Your task to perform on an android device: toggle location history Image 0: 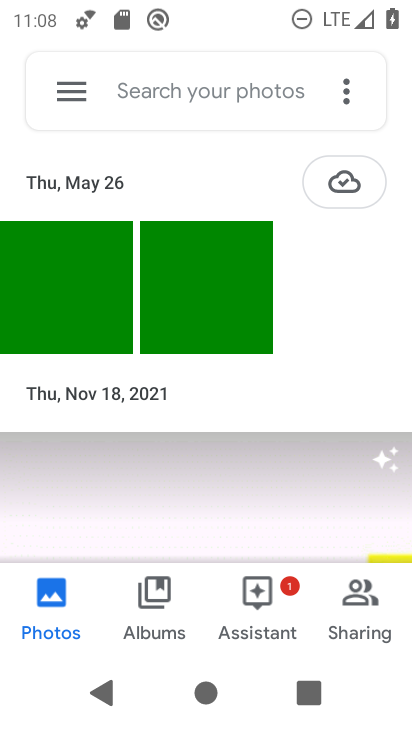
Step 0: press home button
Your task to perform on an android device: toggle location history Image 1: 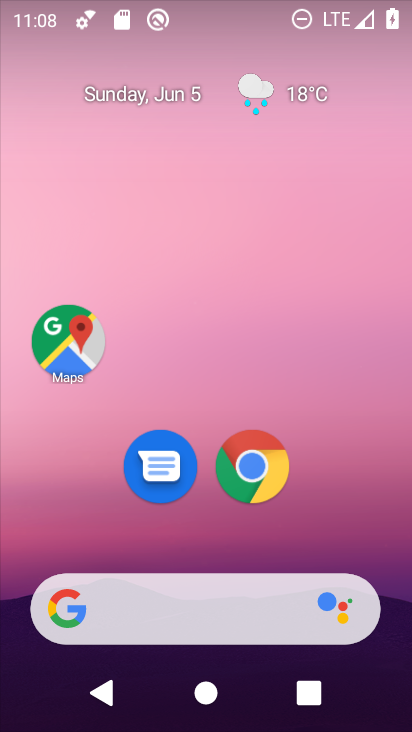
Step 1: drag from (321, 448) to (228, 53)
Your task to perform on an android device: toggle location history Image 2: 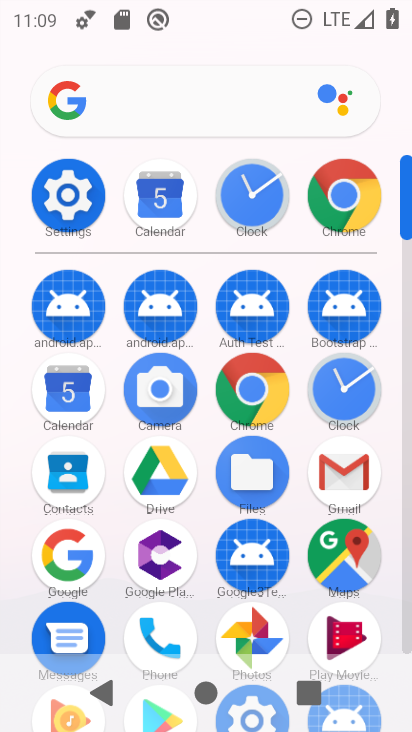
Step 2: click (68, 195)
Your task to perform on an android device: toggle location history Image 3: 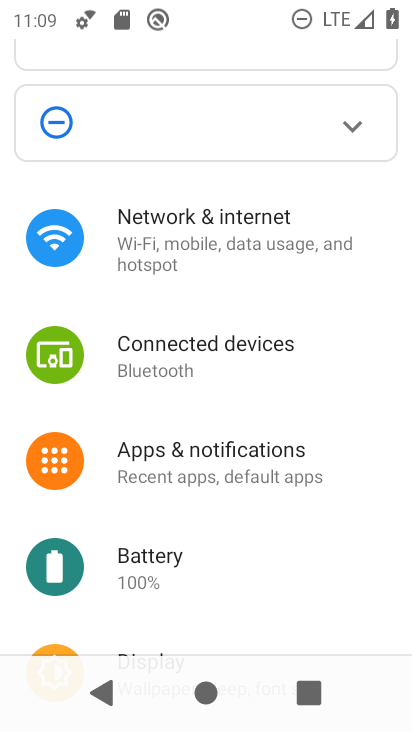
Step 3: drag from (348, 557) to (311, 166)
Your task to perform on an android device: toggle location history Image 4: 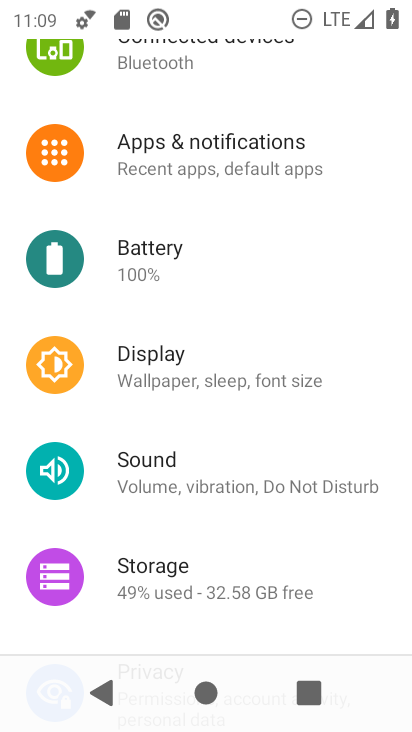
Step 4: drag from (232, 512) to (272, 147)
Your task to perform on an android device: toggle location history Image 5: 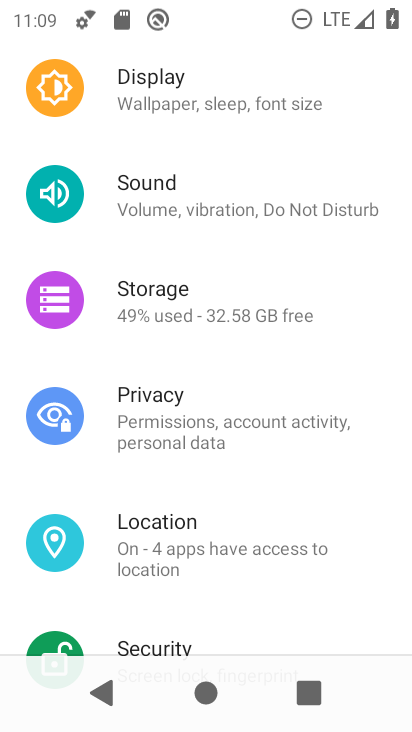
Step 5: click (153, 575)
Your task to perform on an android device: toggle location history Image 6: 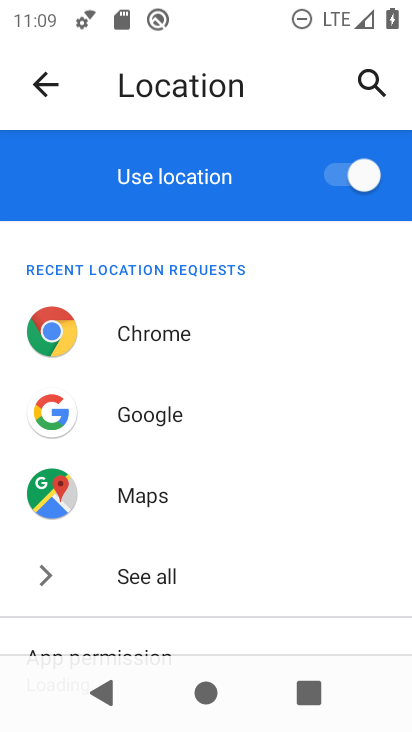
Step 6: drag from (295, 491) to (286, 161)
Your task to perform on an android device: toggle location history Image 7: 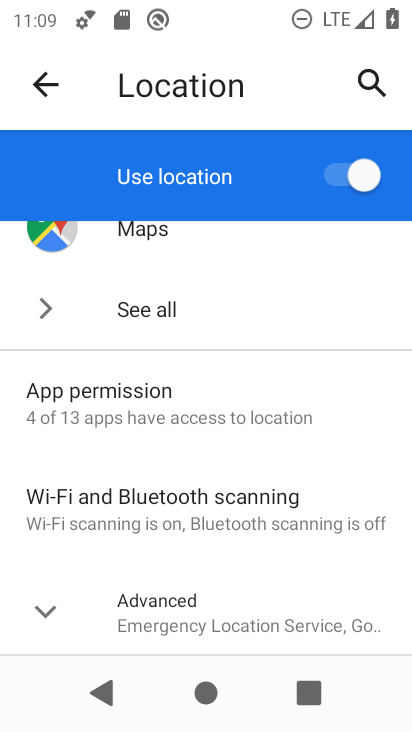
Step 7: click (30, 603)
Your task to perform on an android device: toggle location history Image 8: 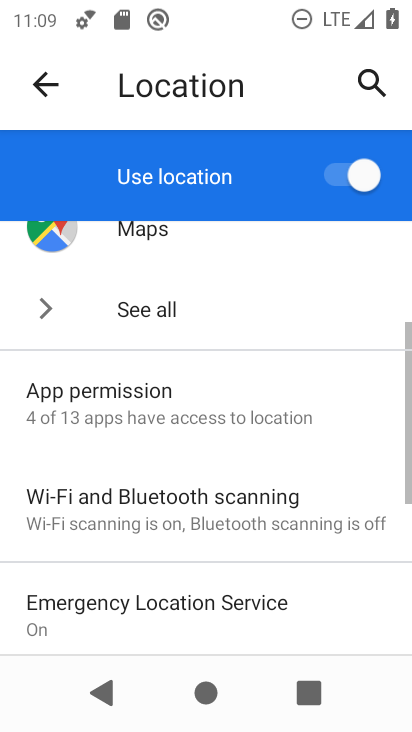
Step 8: drag from (282, 573) to (261, 219)
Your task to perform on an android device: toggle location history Image 9: 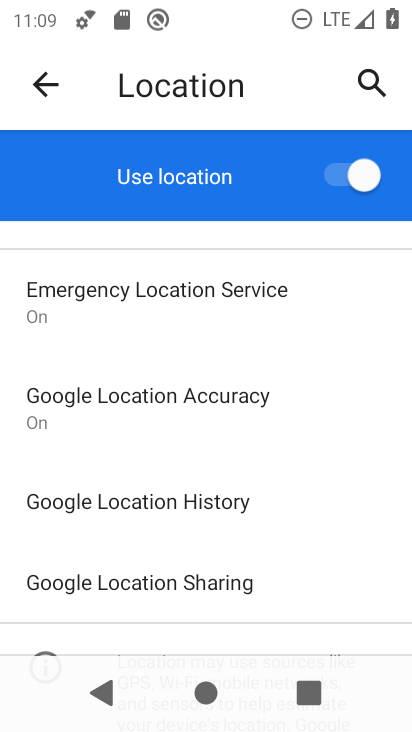
Step 9: drag from (312, 519) to (300, 263)
Your task to perform on an android device: toggle location history Image 10: 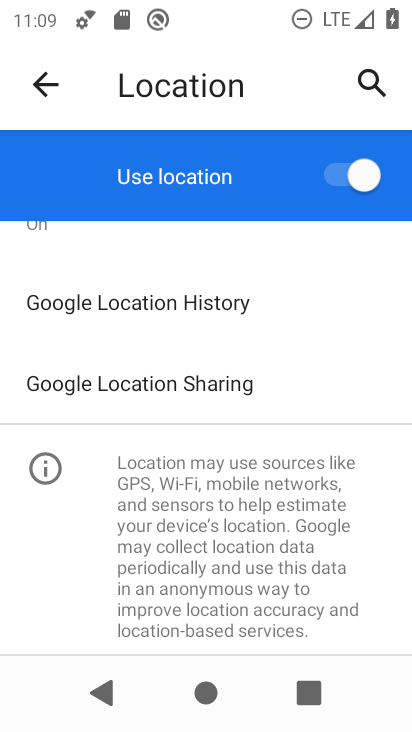
Step 10: click (209, 306)
Your task to perform on an android device: toggle location history Image 11: 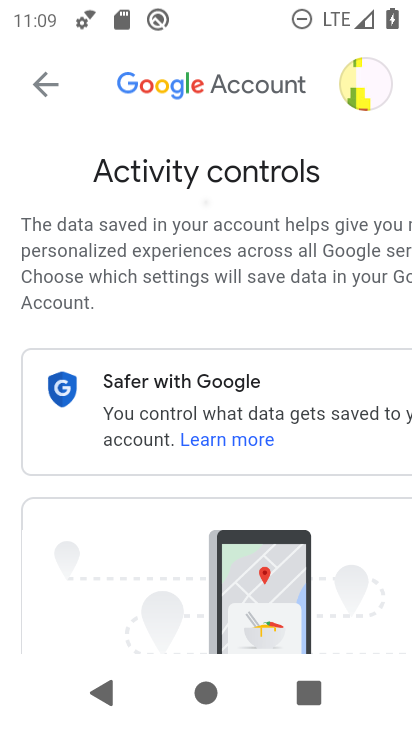
Step 11: drag from (209, 603) to (174, 222)
Your task to perform on an android device: toggle location history Image 12: 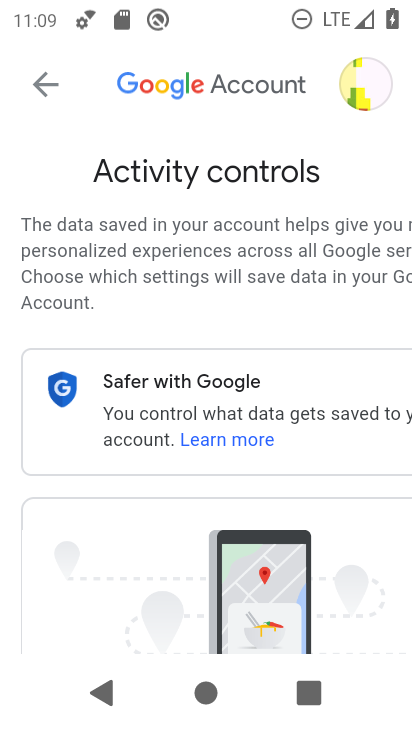
Step 12: drag from (131, 559) to (184, 236)
Your task to perform on an android device: toggle location history Image 13: 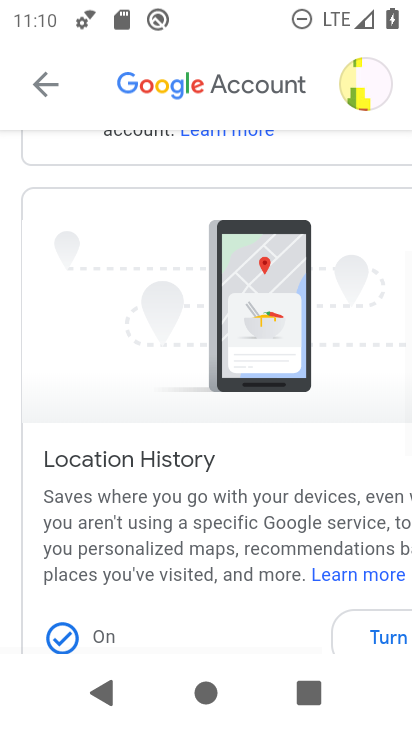
Step 13: drag from (177, 531) to (172, 220)
Your task to perform on an android device: toggle location history Image 14: 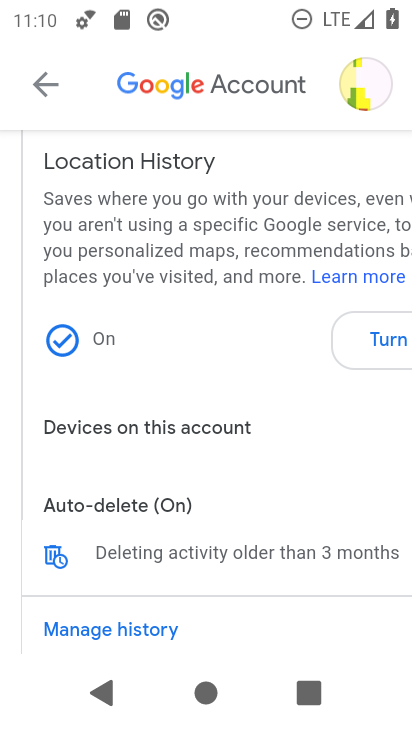
Step 14: click (360, 333)
Your task to perform on an android device: toggle location history Image 15: 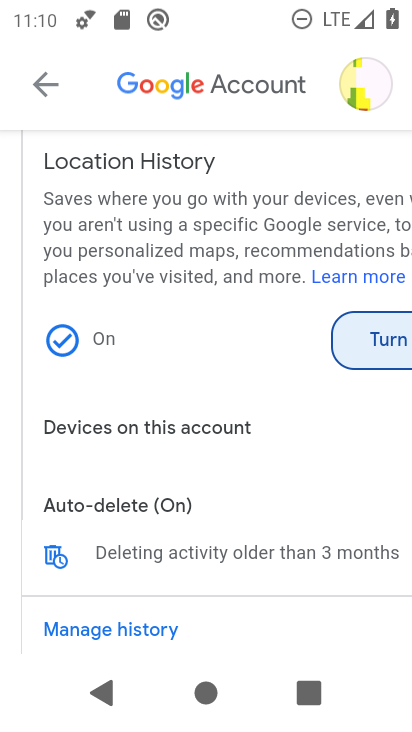
Step 15: click (369, 342)
Your task to perform on an android device: toggle location history Image 16: 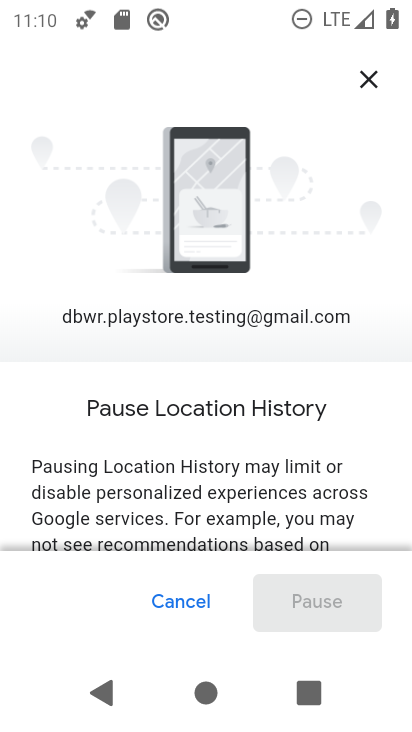
Step 16: drag from (307, 463) to (324, 137)
Your task to perform on an android device: toggle location history Image 17: 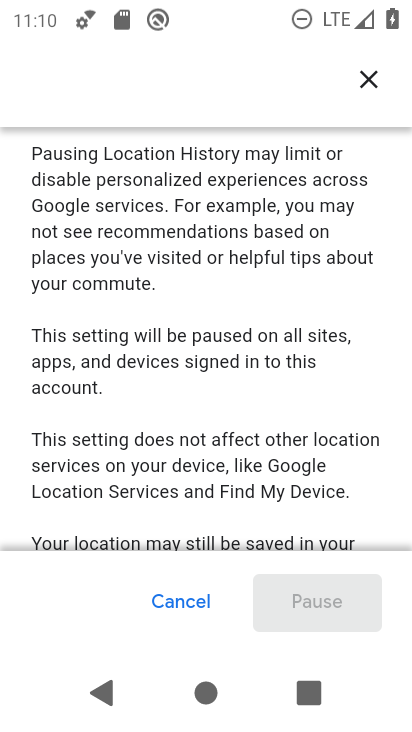
Step 17: drag from (255, 454) to (263, 146)
Your task to perform on an android device: toggle location history Image 18: 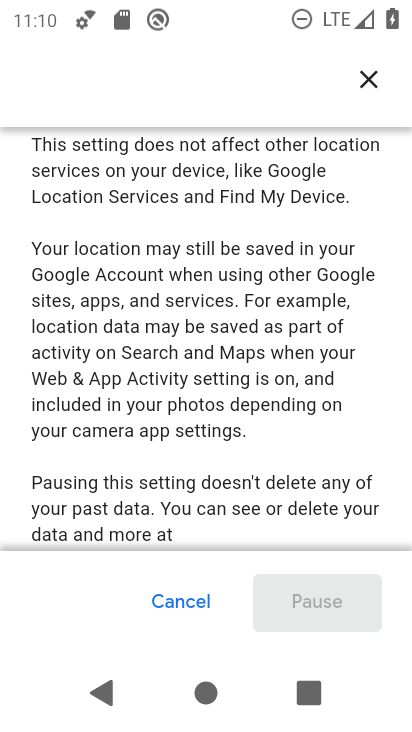
Step 18: drag from (261, 442) to (279, 104)
Your task to perform on an android device: toggle location history Image 19: 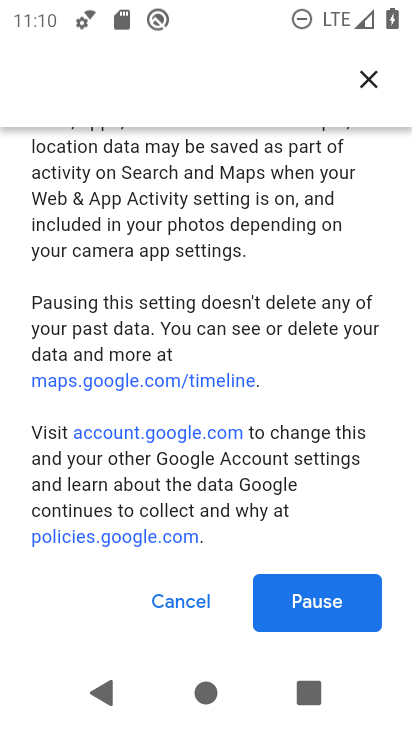
Step 19: click (279, 588)
Your task to perform on an android device: toggle location history Image 20: 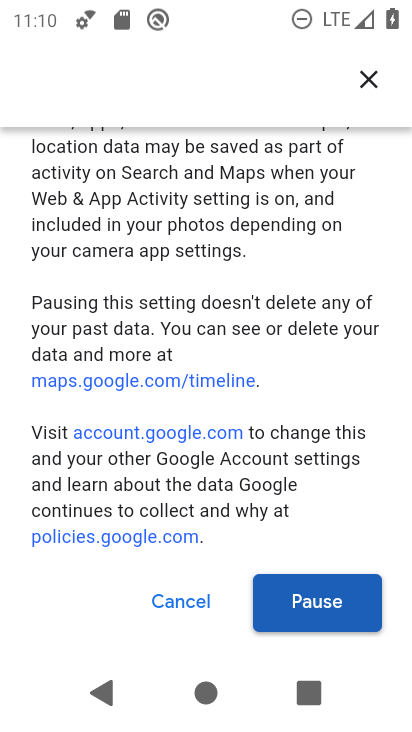
Step 20: click (286, 590)
Your task to perform on an android device: toggle location history Image 21: 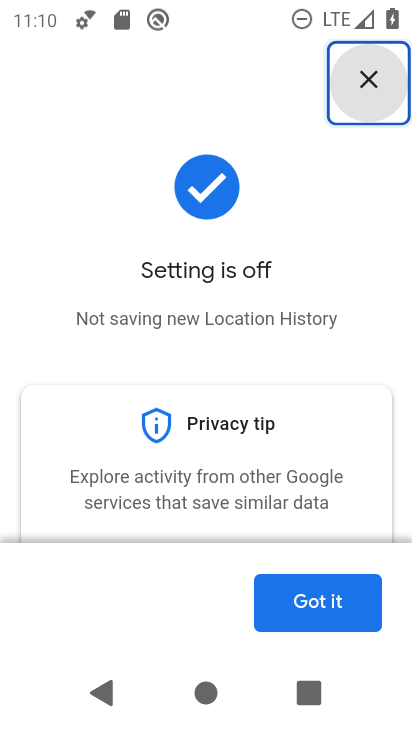
Step 21: task complete